Your task to perform on an android device: Open Chrome and go to the settings page Image 0: 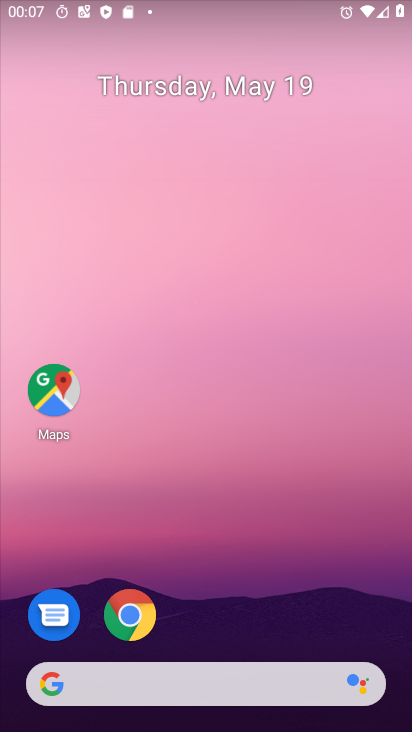
Step 0: press home button
Your task to perform on an android device: Open Chrome and go to the settings page Image 1: 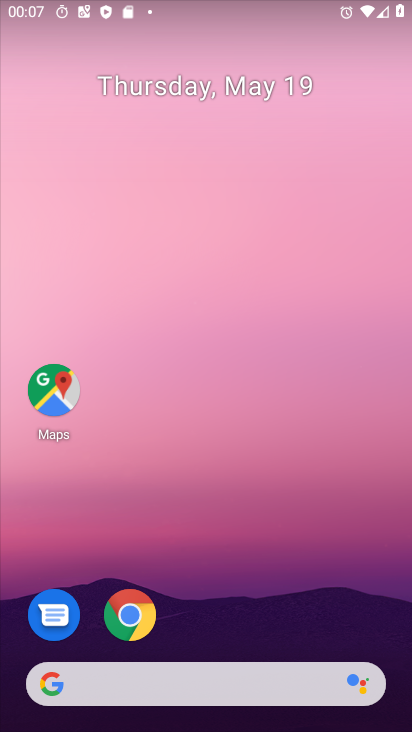
Step 1: click (133, 630)
Your task to perform on an android device: Open Chrome and go to the settings page Image 2: 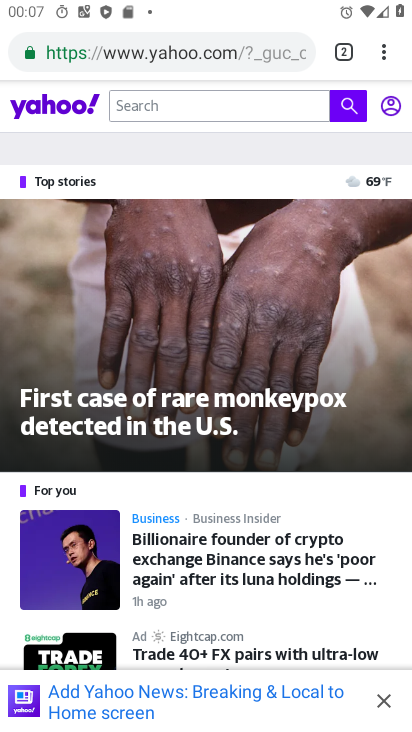
Step 2: click (390, 54)
Your task to perform on an android device: Open Chrome and go to the settings page Image 3: 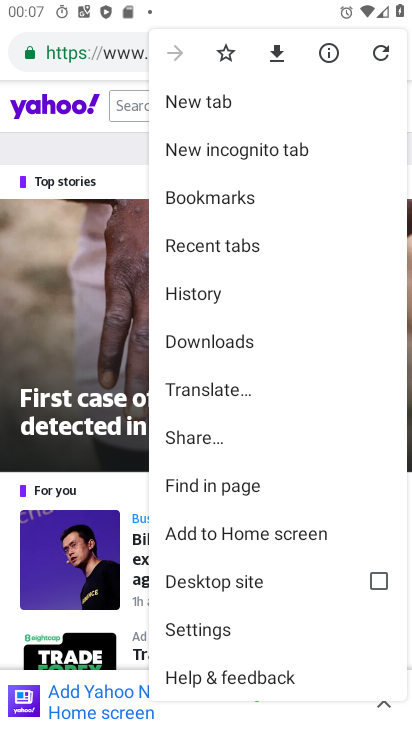
Step 3: click (223, 636)
Your task to perform on an android device: Open Chrome and go to the settings page Image 4: 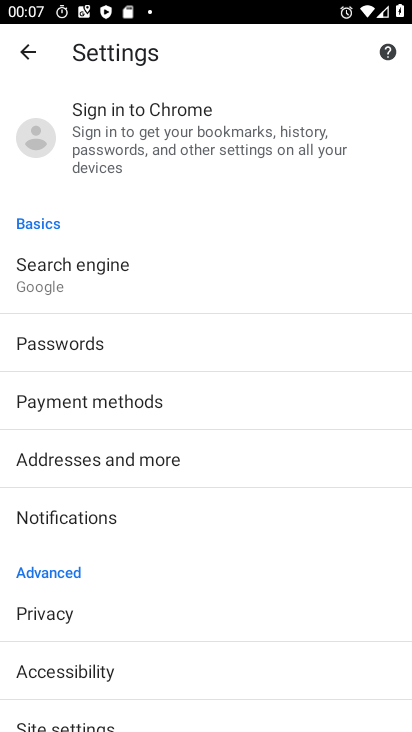
Step 4: task complete